Your task to perform on an android device: set the stopwatch Image 0: 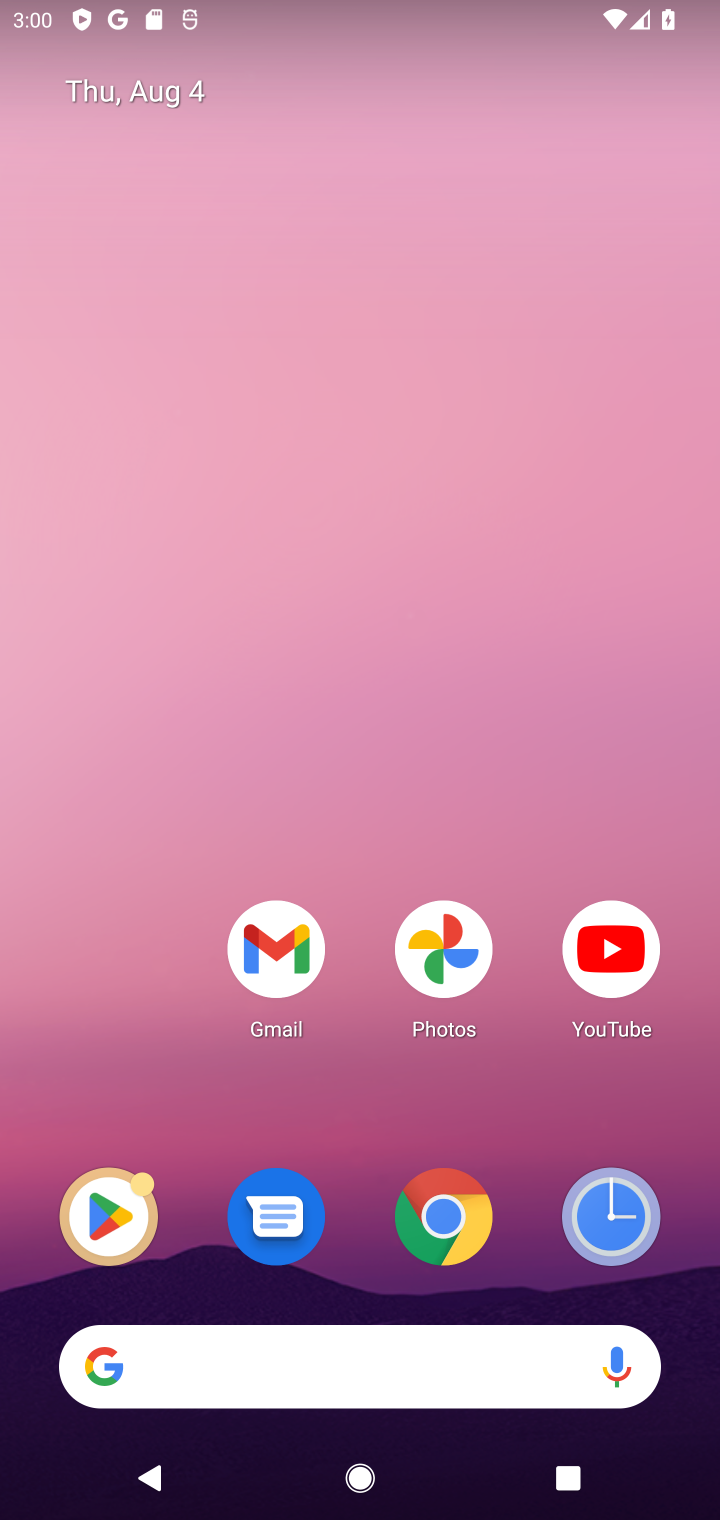
Step 0: click (603, 1199)
Your task to perform on an android device: set the stopwatch Image 1: 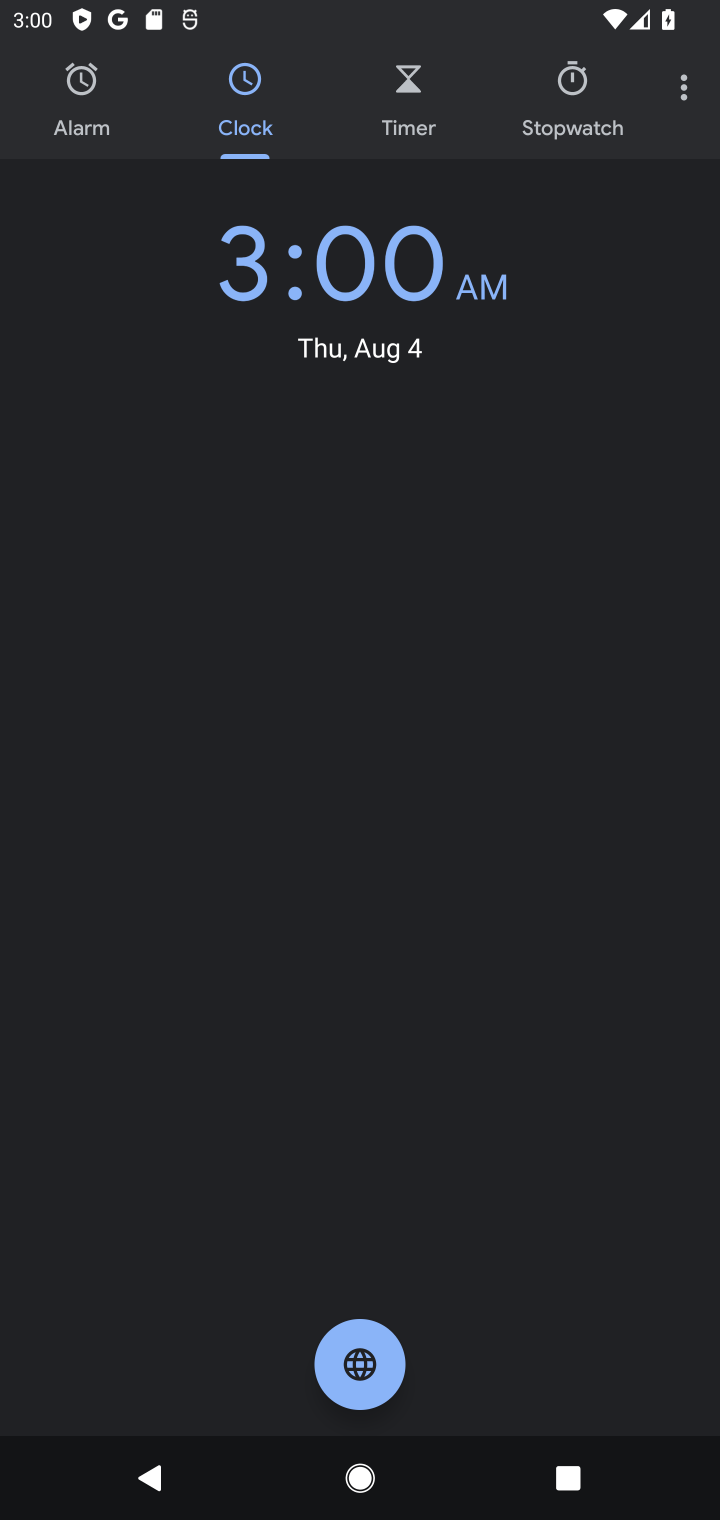
Step 1: click (582, 118)
Your task to perform on an android device: set the stopwatch Image 2: 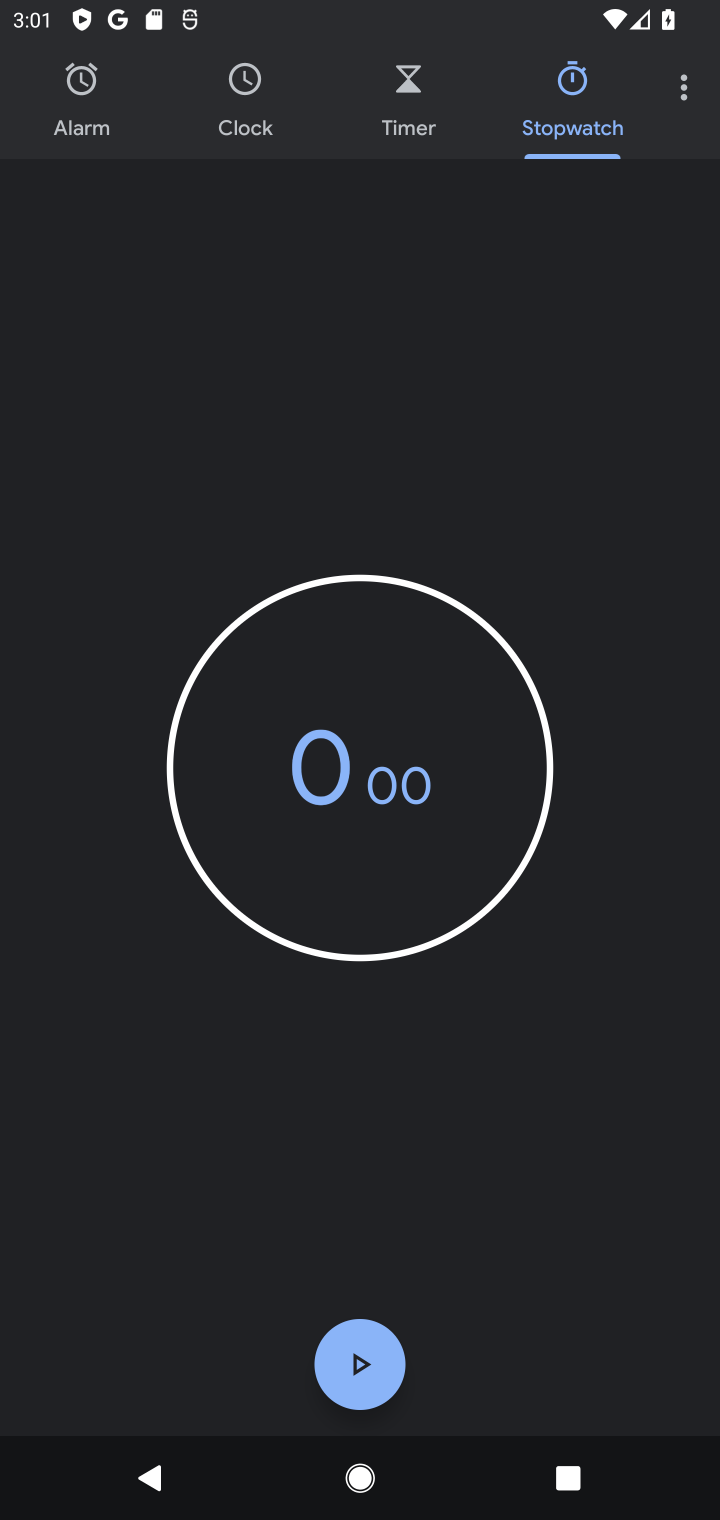
Step 2: click (391, 754)
Your task to perform on an android device: set the stopwatch Image 3: 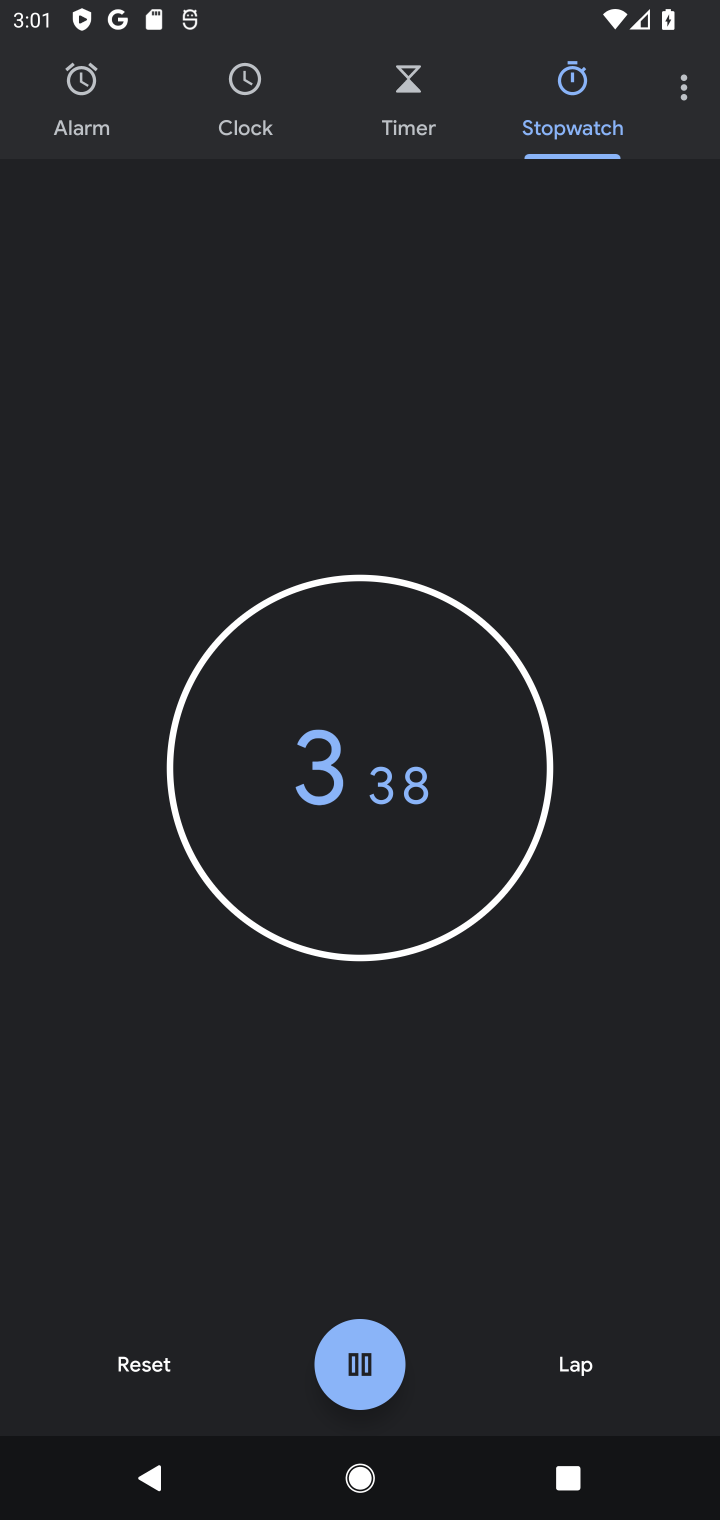
Step 3: click (350, 782)
Your task to perform on an android device: set the stopwatch Image 4: 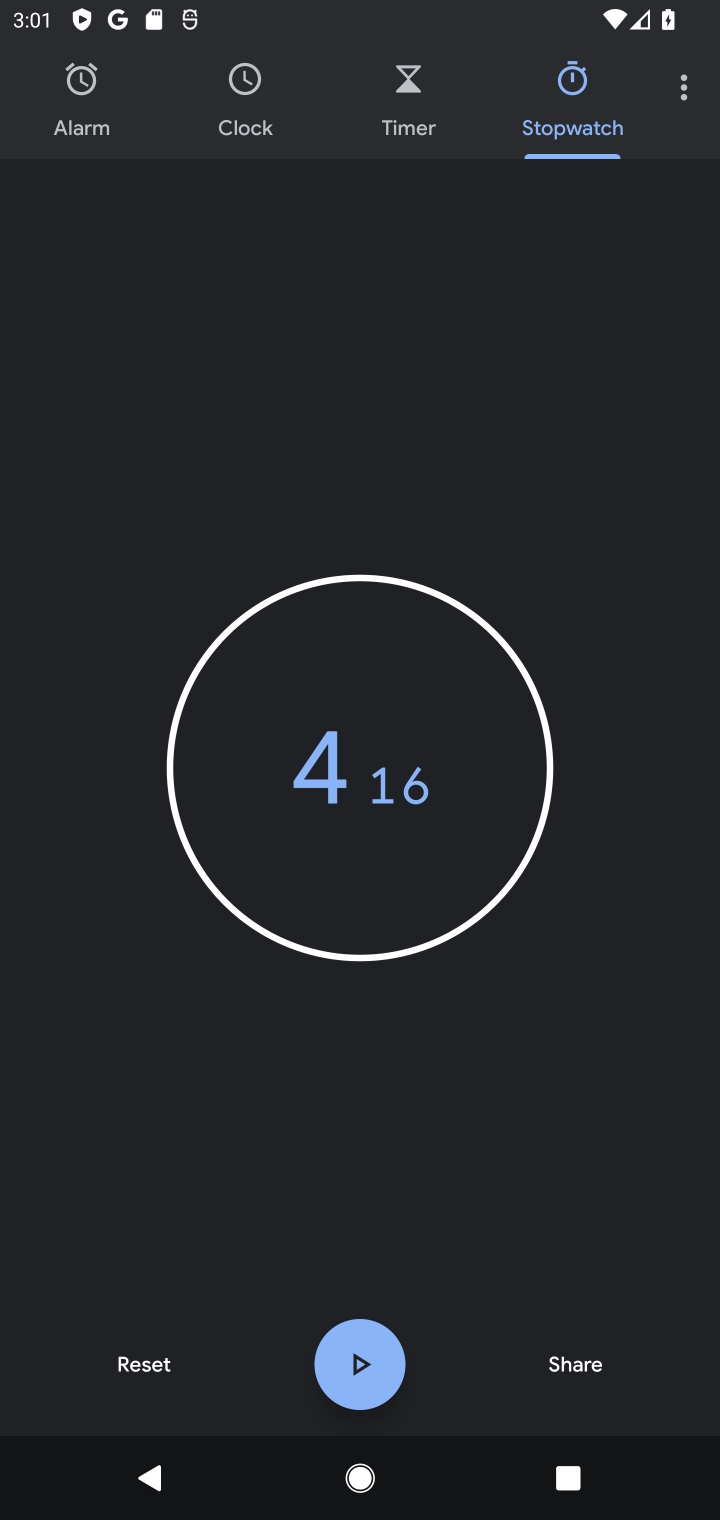
Step 4: task complete